Your task to perform on an android device: turn on bluetooth scan Image 0: 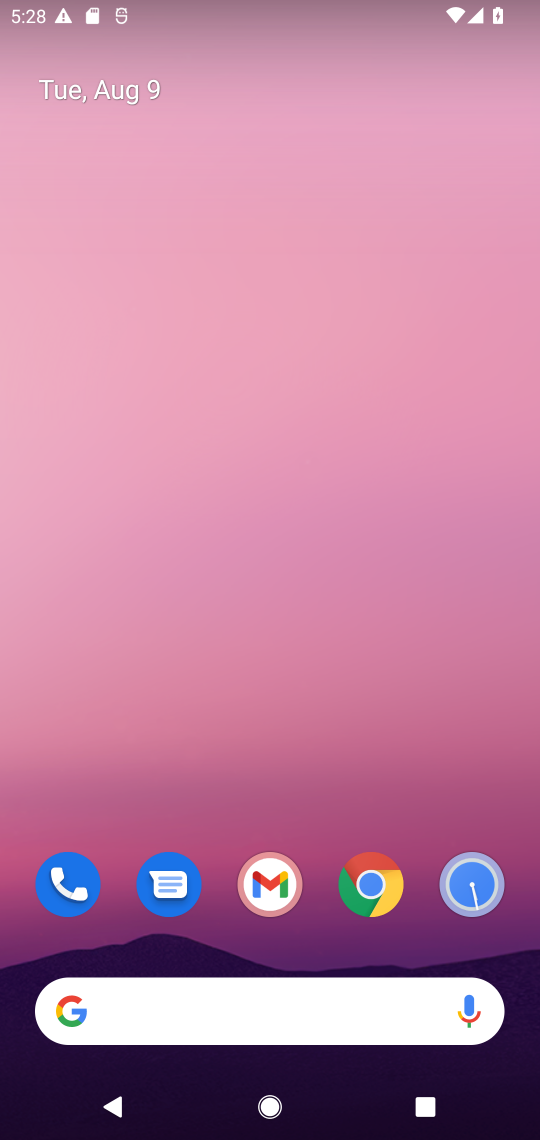
Step 0: drag from (243, 1036) to (308, 73)
Your task to perform on an android device: turn on bluetooth scan Image 1: 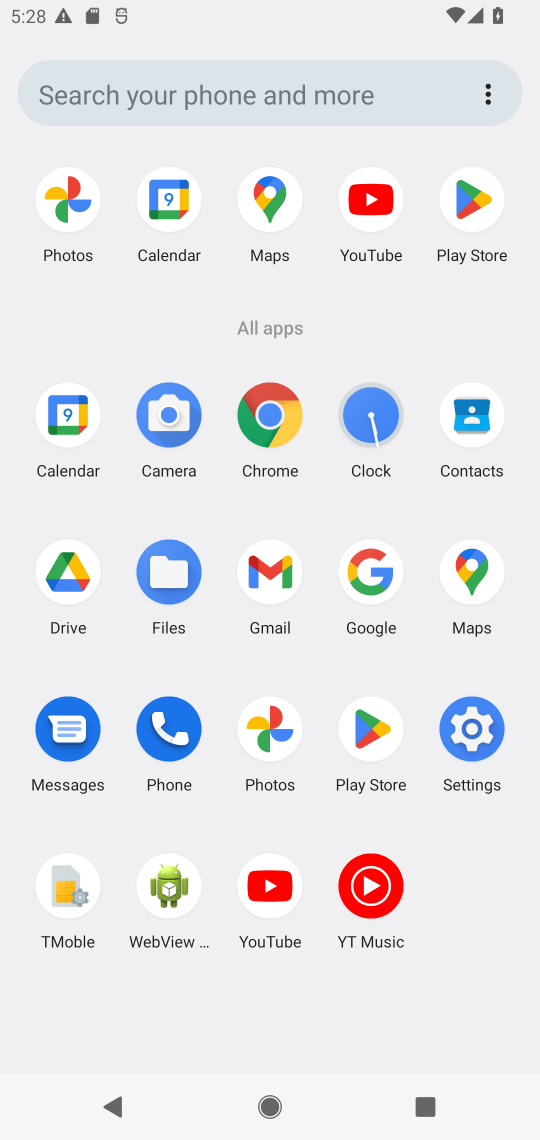
Step 1: click (475, 729)
Your task to perform on an android device: turn on bluetooth scan Image 2: 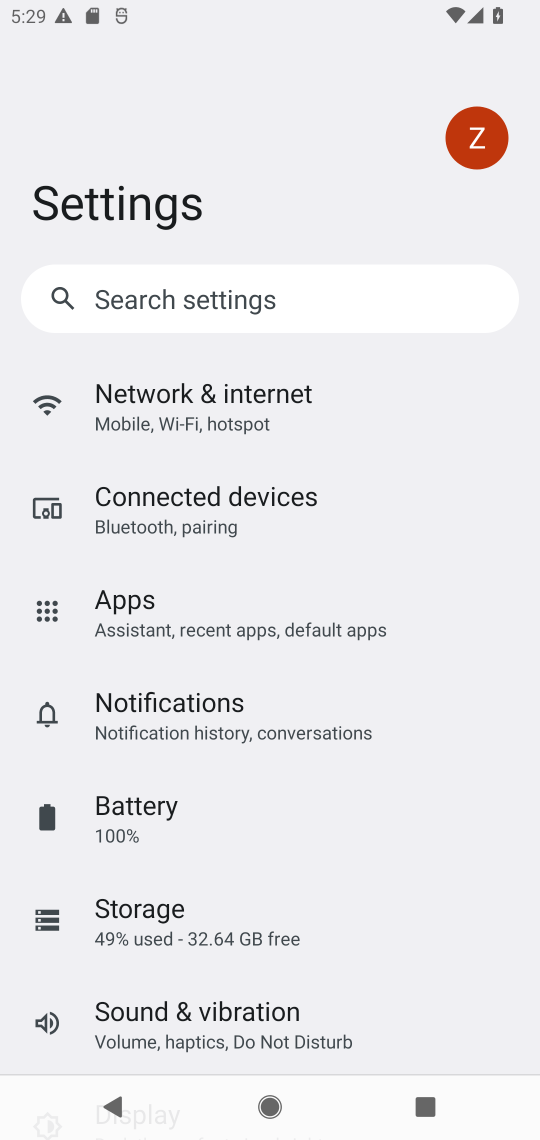
Step 2: drag from (257, 830) to (326, 567)
Your task to perform on an android device: turn on bluetooth scan Image 3: 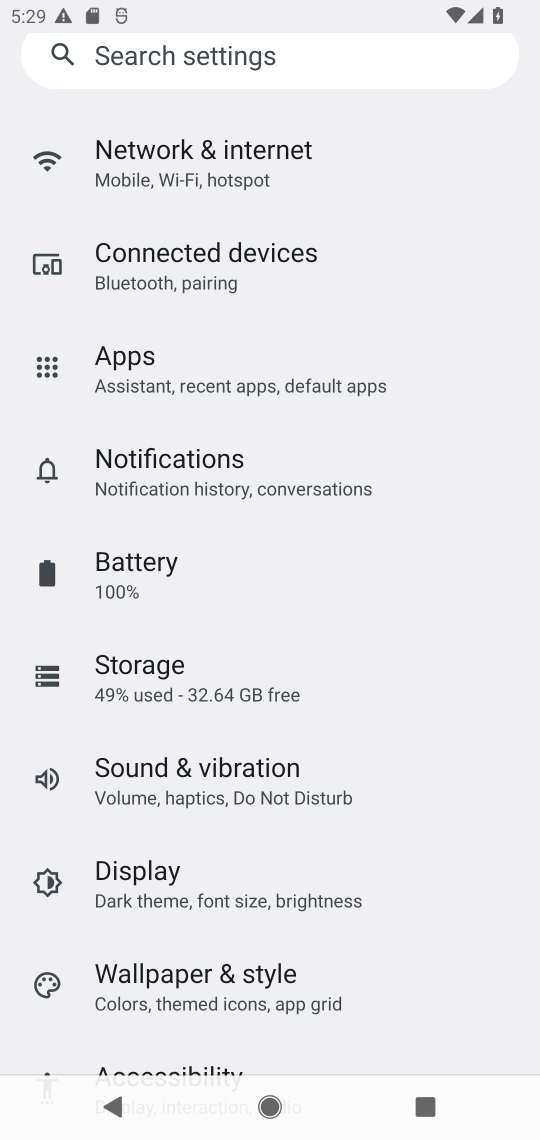
Step 3: drag from (188, 921) to (319, 575)
Your task to perform on an android device: turn on bluetooth scan Image 4: 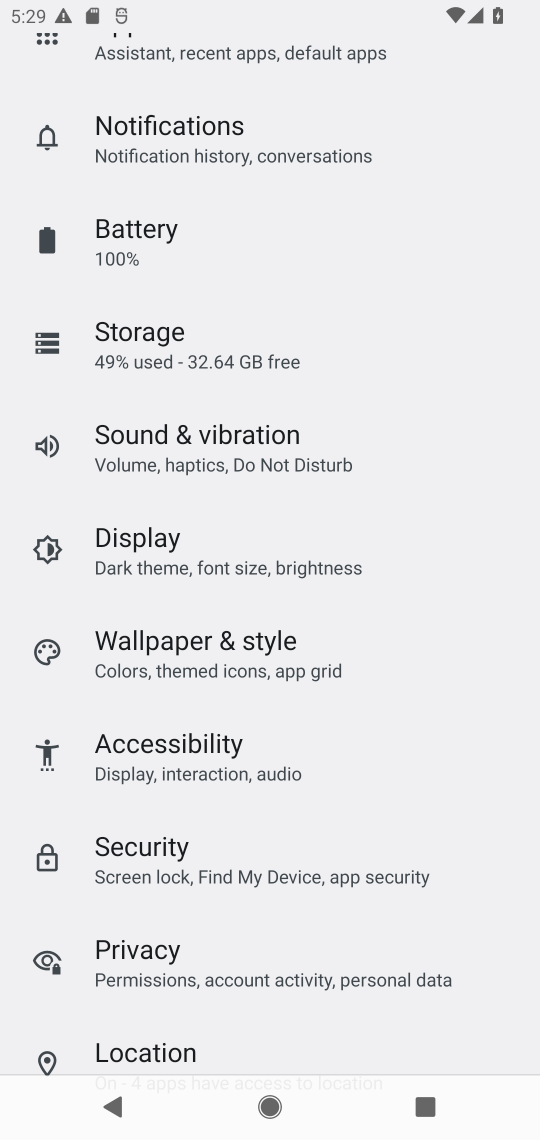
Step 4: drag from (253, 918) to (381, 660)
Your task to perform on an android device: turn on bluetooth scan Image 5: 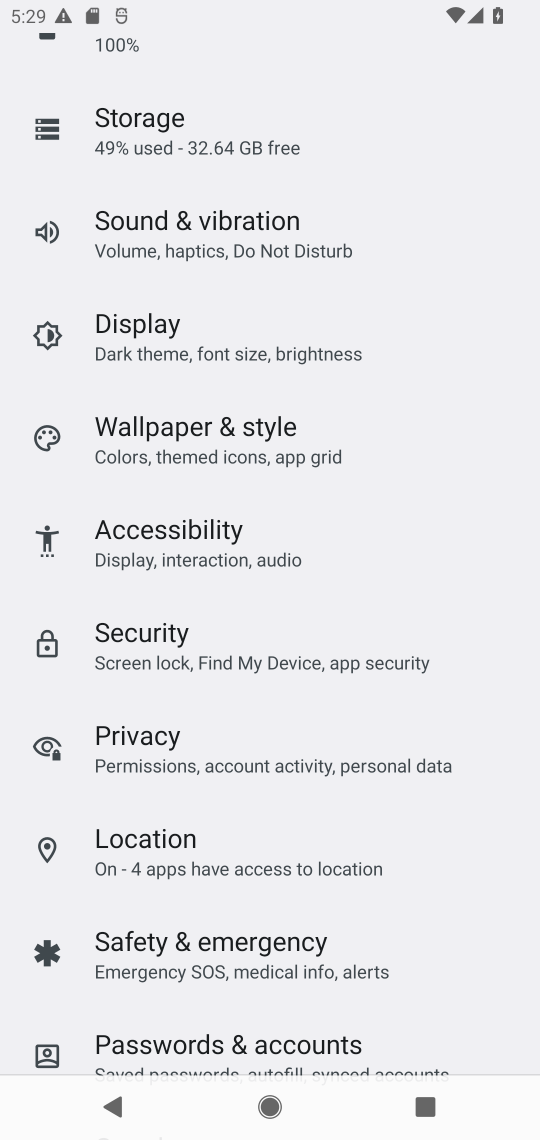
Step 5: click (195, 864)
Your task to perform on an android device: turn on bluetooth scan Image 6: 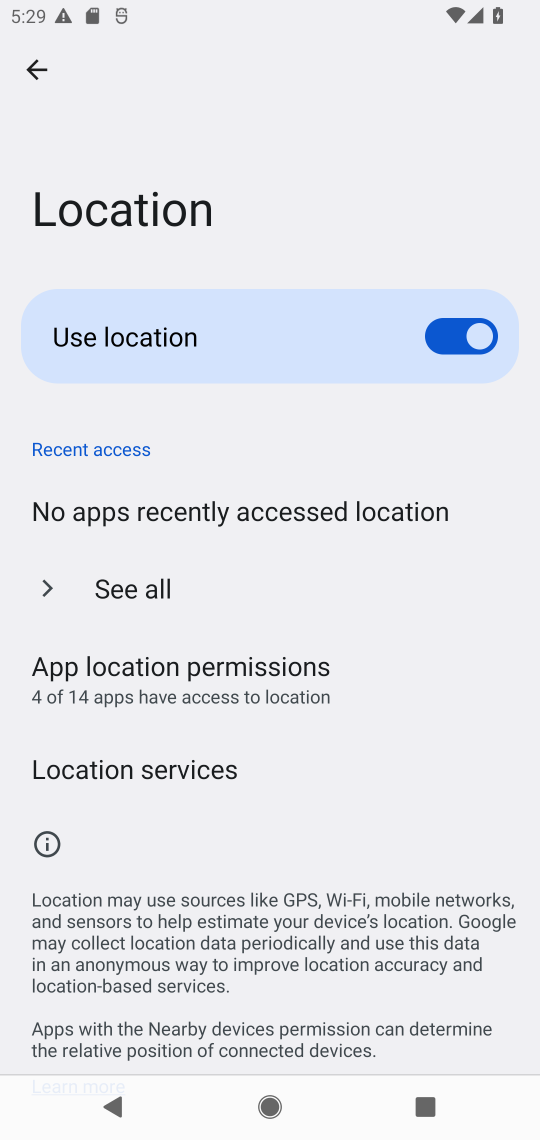
Step 6: click (185, 764)
Your task to perform on an android device: turn on bluetooth scan Image 7: 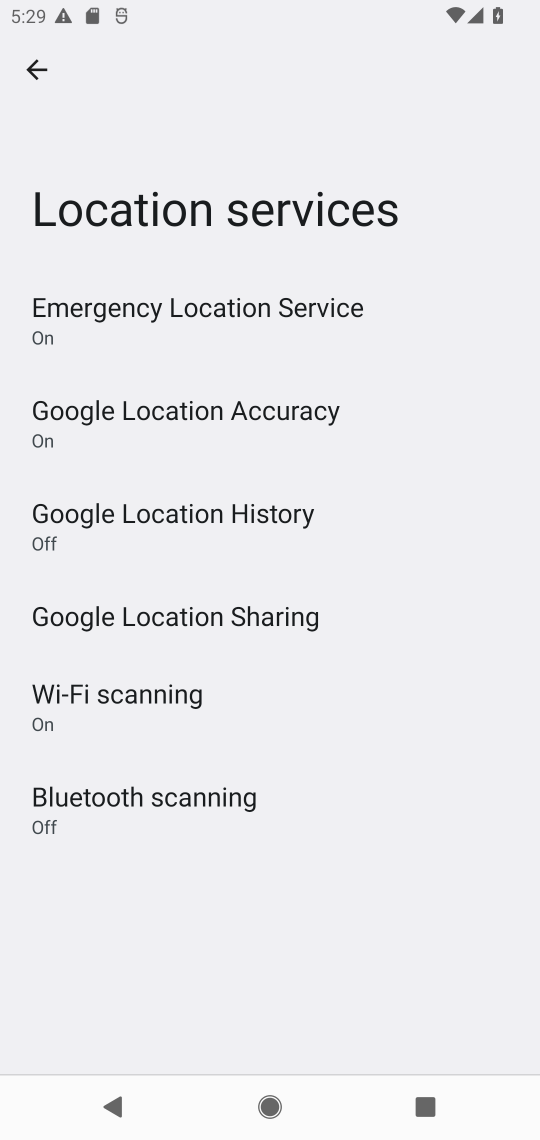
Step 7: click (181, 793)
Your task to perform on an android device: turn on bluetooth scan Image 8: 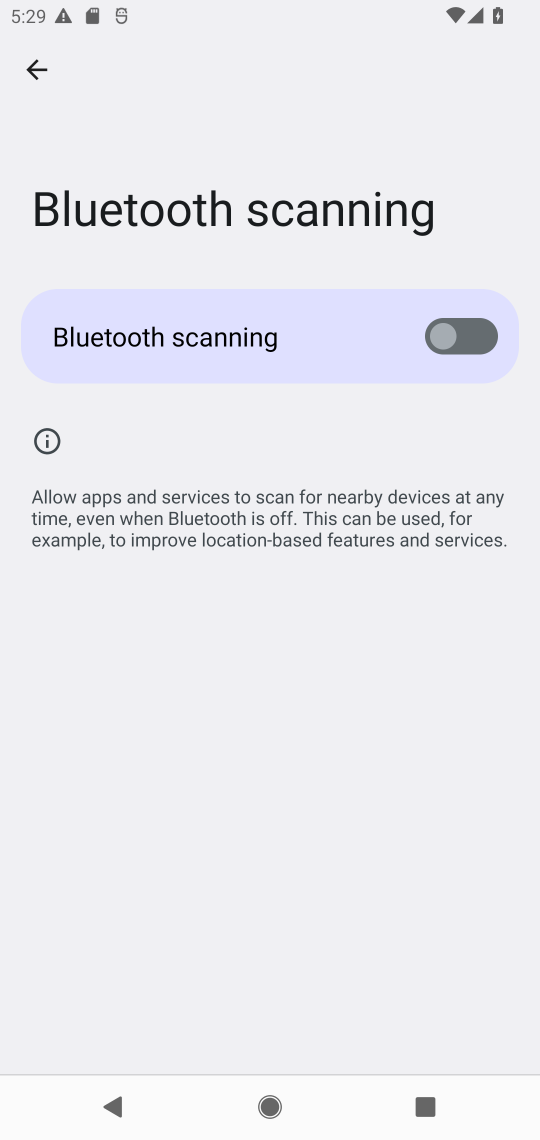
Step 8: click (434, 341)
Your task to perform on an android device: turn on bluetooth scan Image 9: 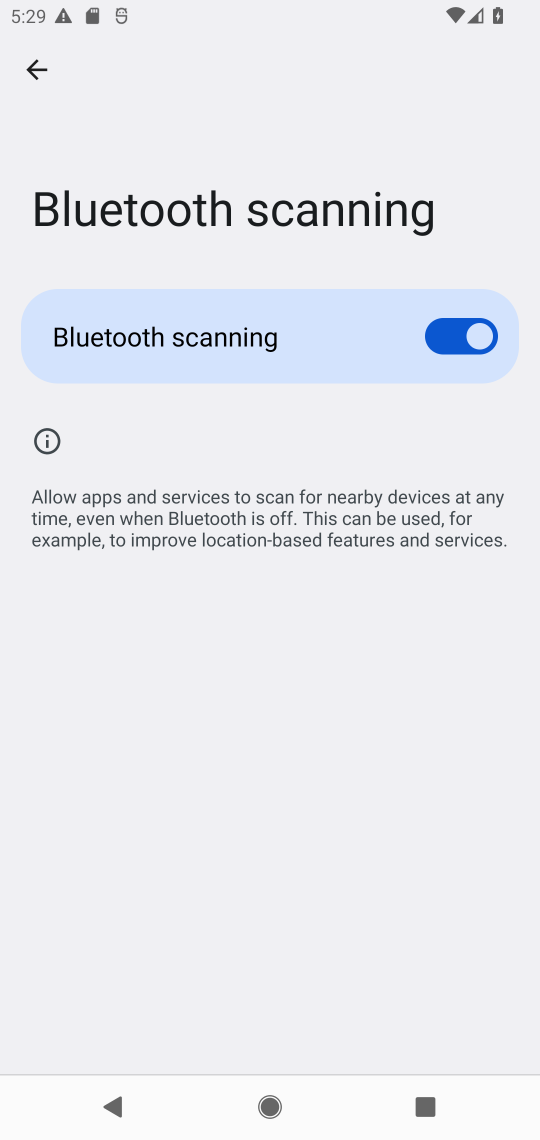
Step 9: task complete